Your task to perform on an android device: What's the weather today? Image 0: 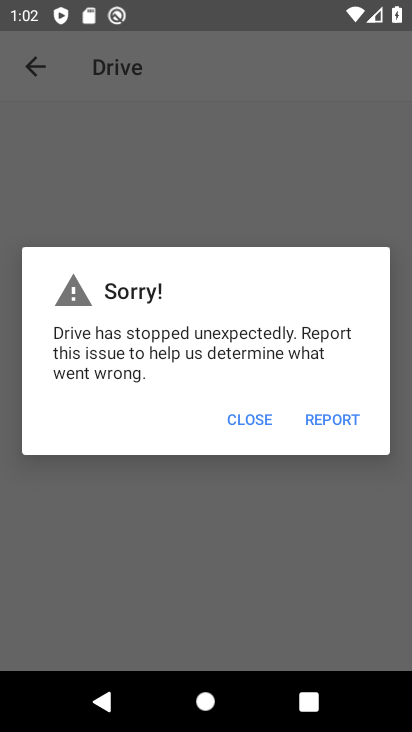
Step 0: press home button
Your task to perform on an android device: What's the weather today? Image 1: 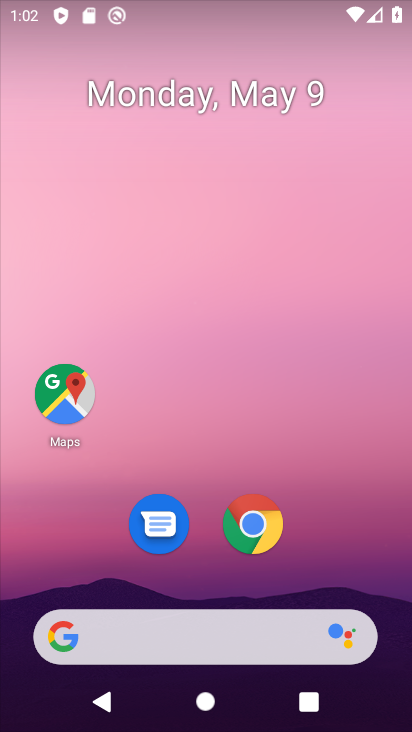
Step 1: click (144, 633)
Your task to perform on an android device: What's the weather today? Image 2: 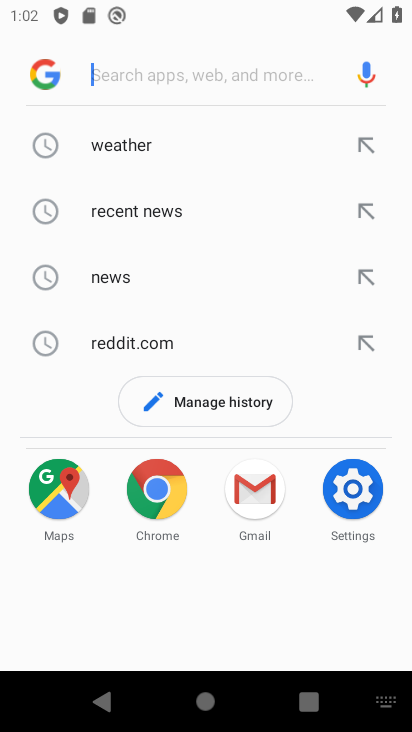
Step 2: click (134, 139)
Your task to perform on an android device: What's the weather today? Image 3: 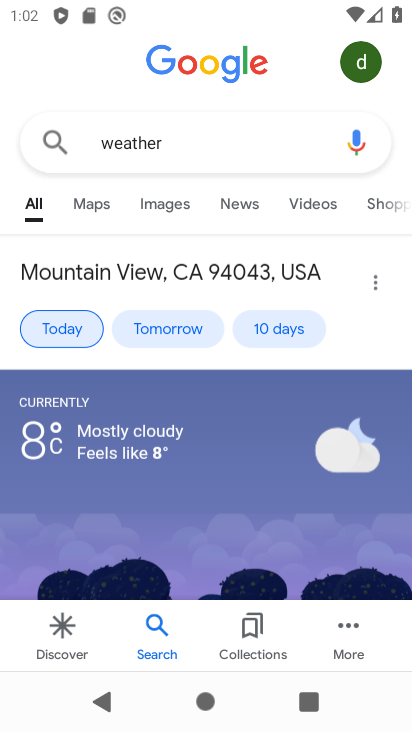
Step 3: task complete